Your task to perform on an android device: open app "Pluto TV - Live TV and Movies" (install if not already installed) Image 0: 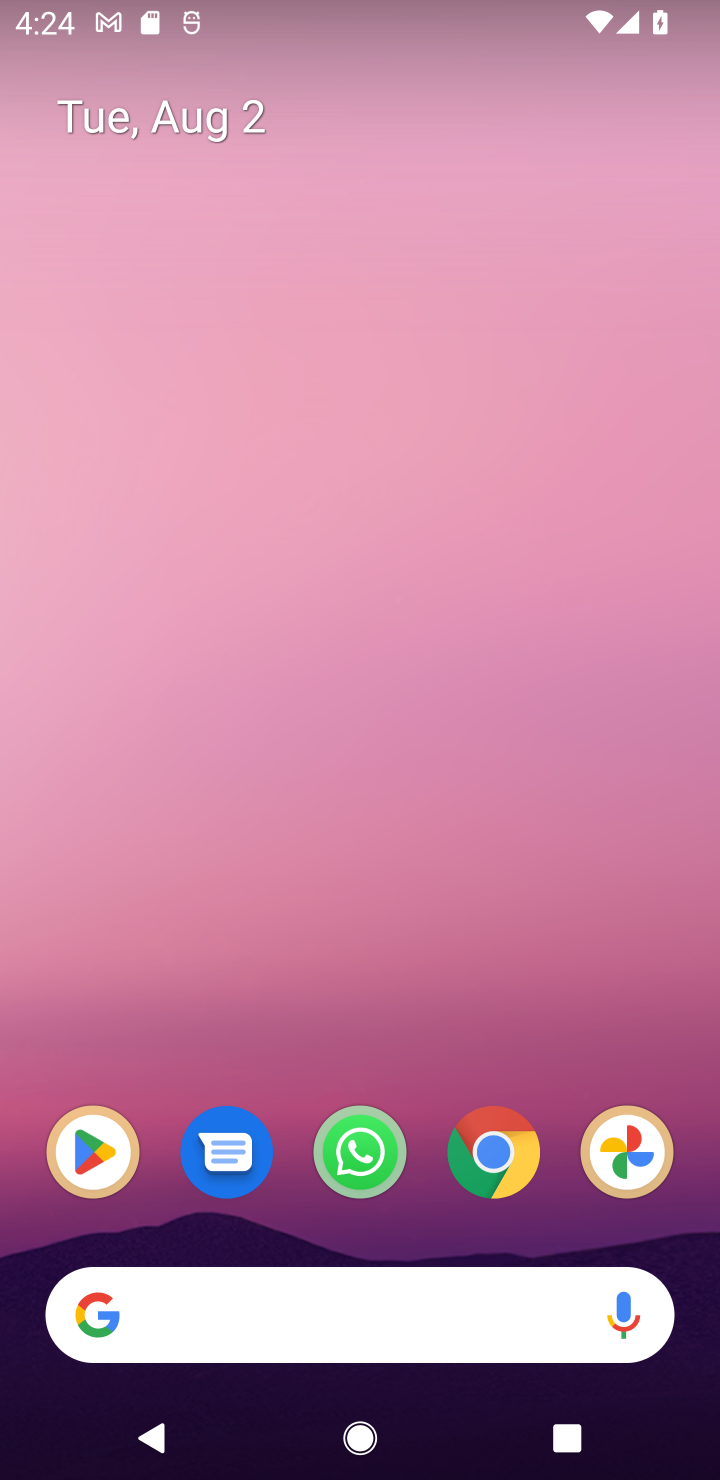
Step 0: drag from (515, 973) to (37, 82)
Your task to perform on an android device: open app "Pluto TV - Live TV and Movies" (install if not already installed) Image 1: 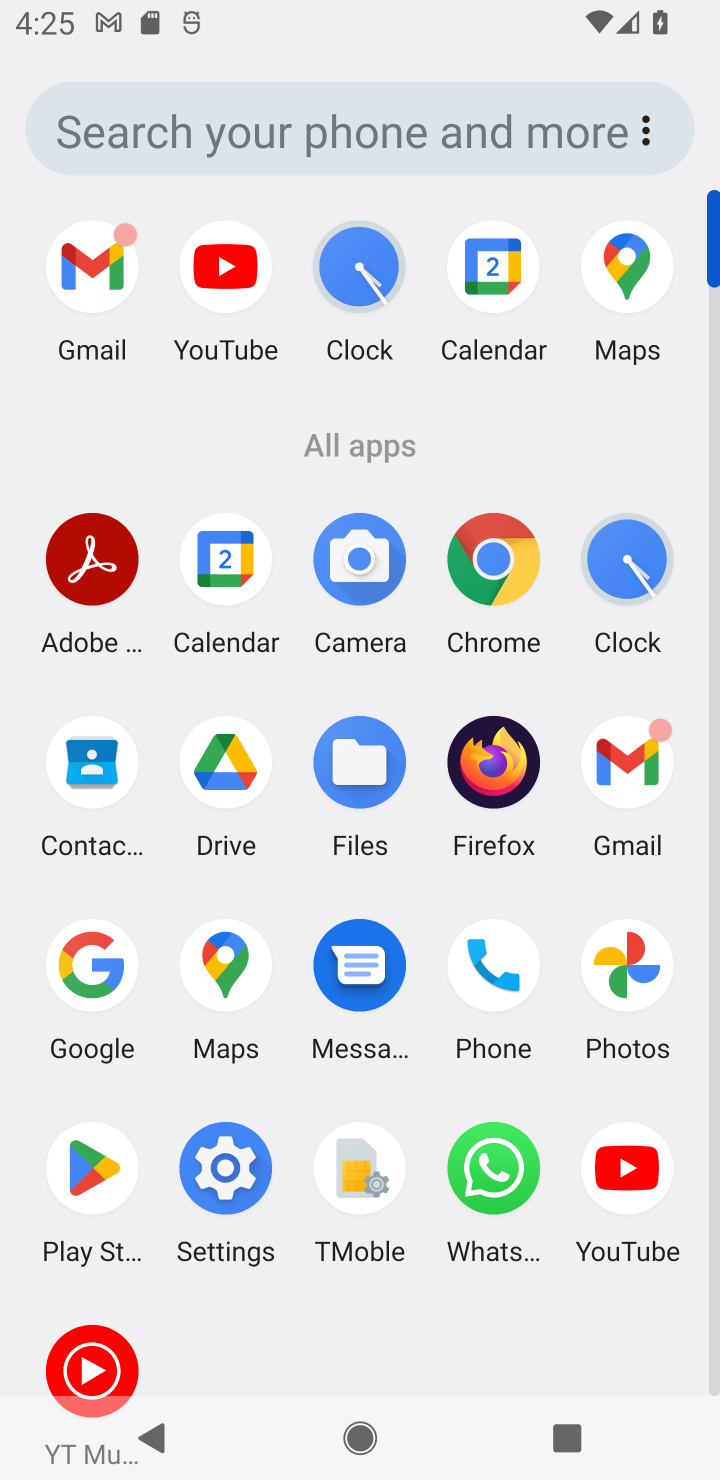
Step 1: click (387, 122)
Your task to perform on an android device: open app "Pluto TV - Live TV and Movies" (install if not already installed) Image 2: 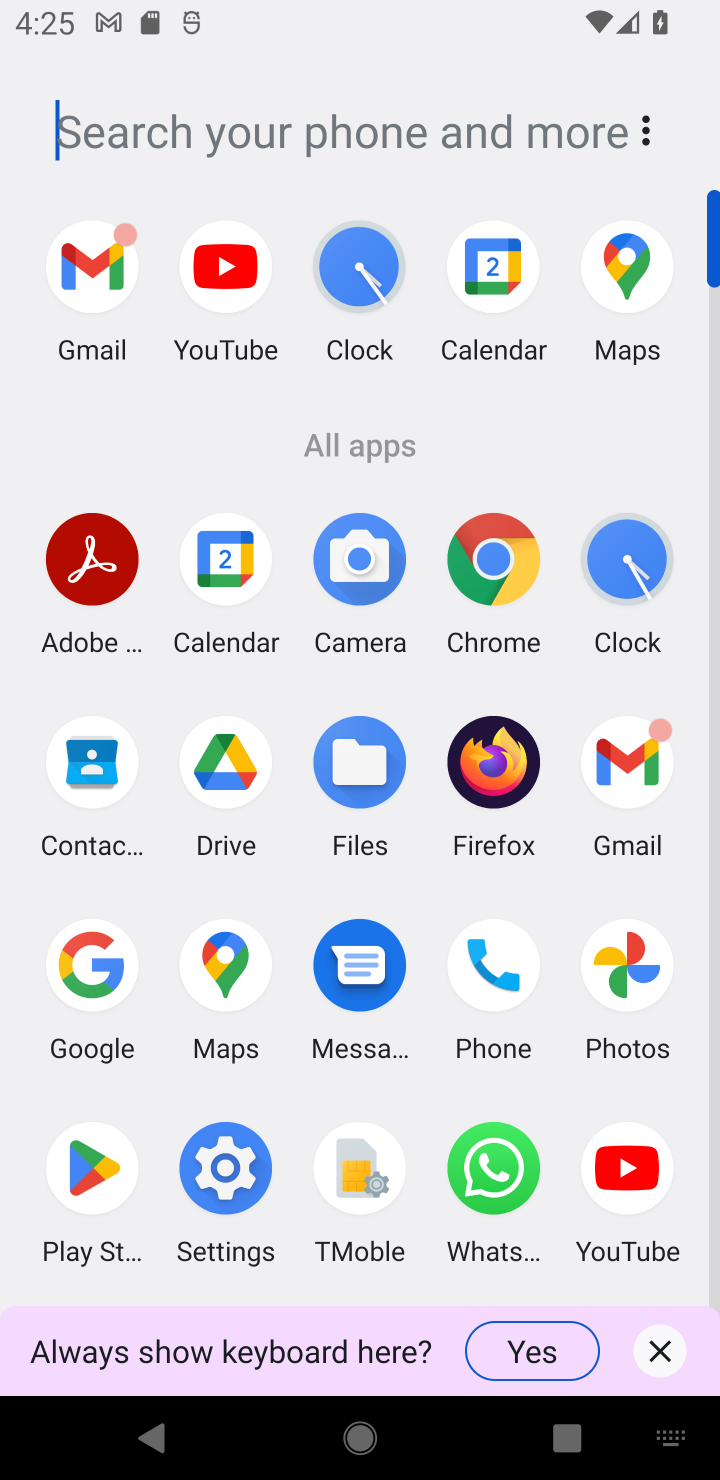
Step 2: click (90, 1160)
Your task to perform on an android device: open app "Pluto TV - Live TV and Movies" (install if not already installed) Image 3: 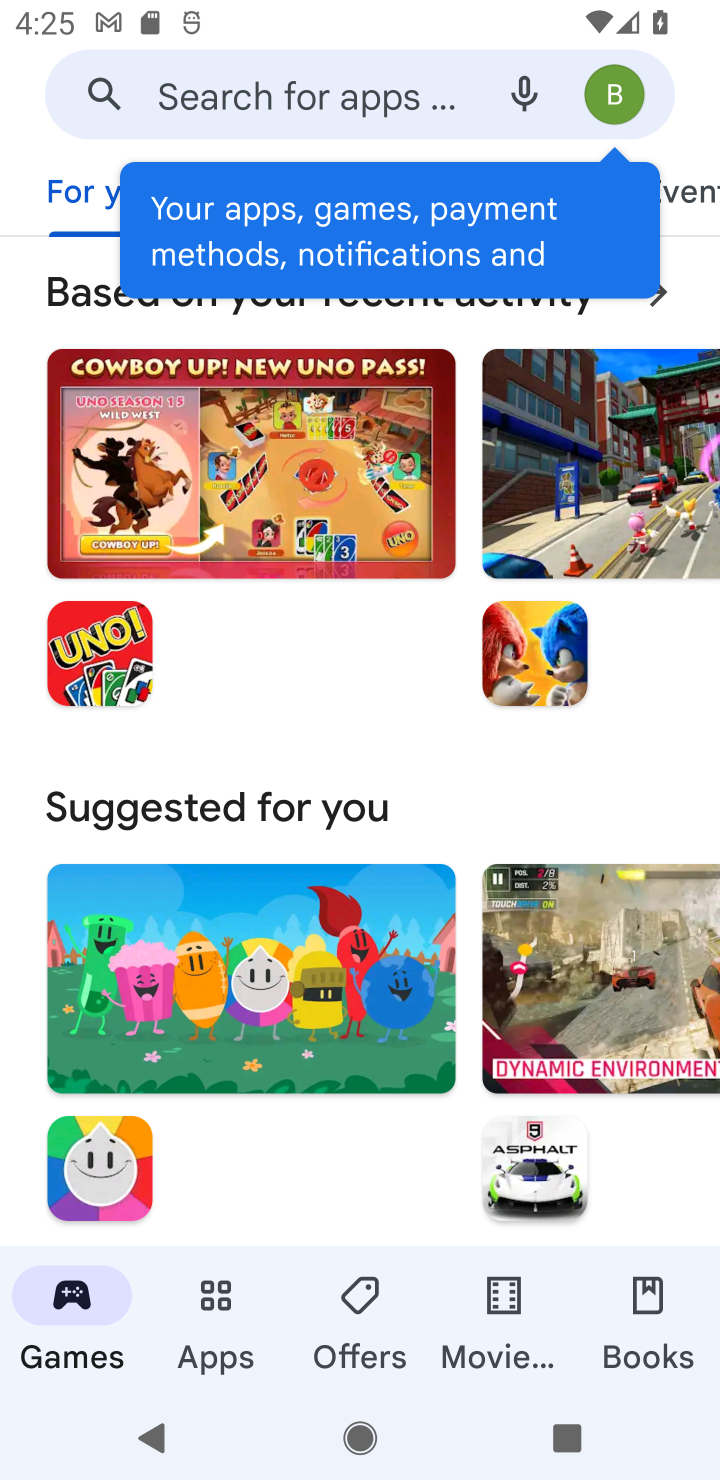
Step 3: click (243, 101)
Your task to perform on an android device: open app "Pluto TV - Live TV and Movies" (install if not already installed) Image 4: 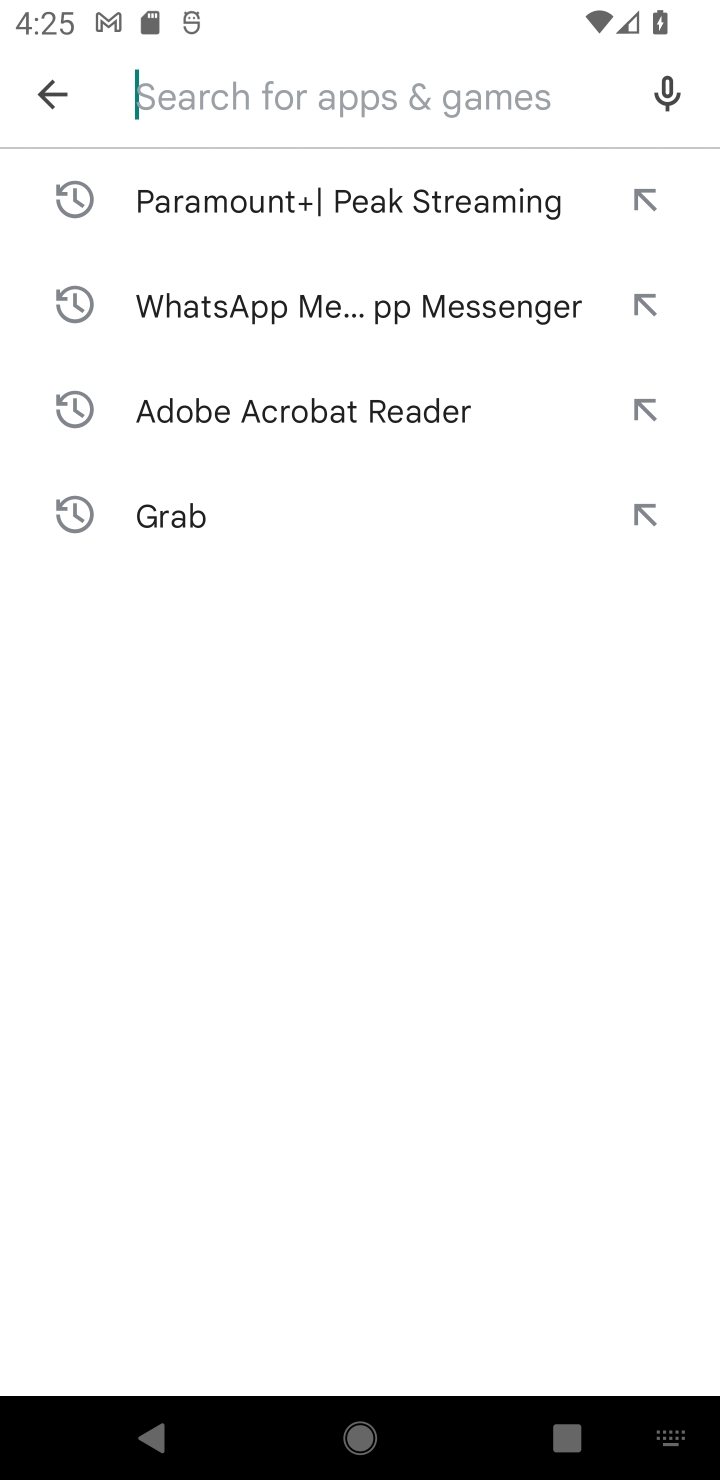
Step 4: type "Pluto TV - Live TV and Movies"
Your task to perform on an android device: open app "Pluto TV - Live TV and Movies" (install if not already installed) Image 5: 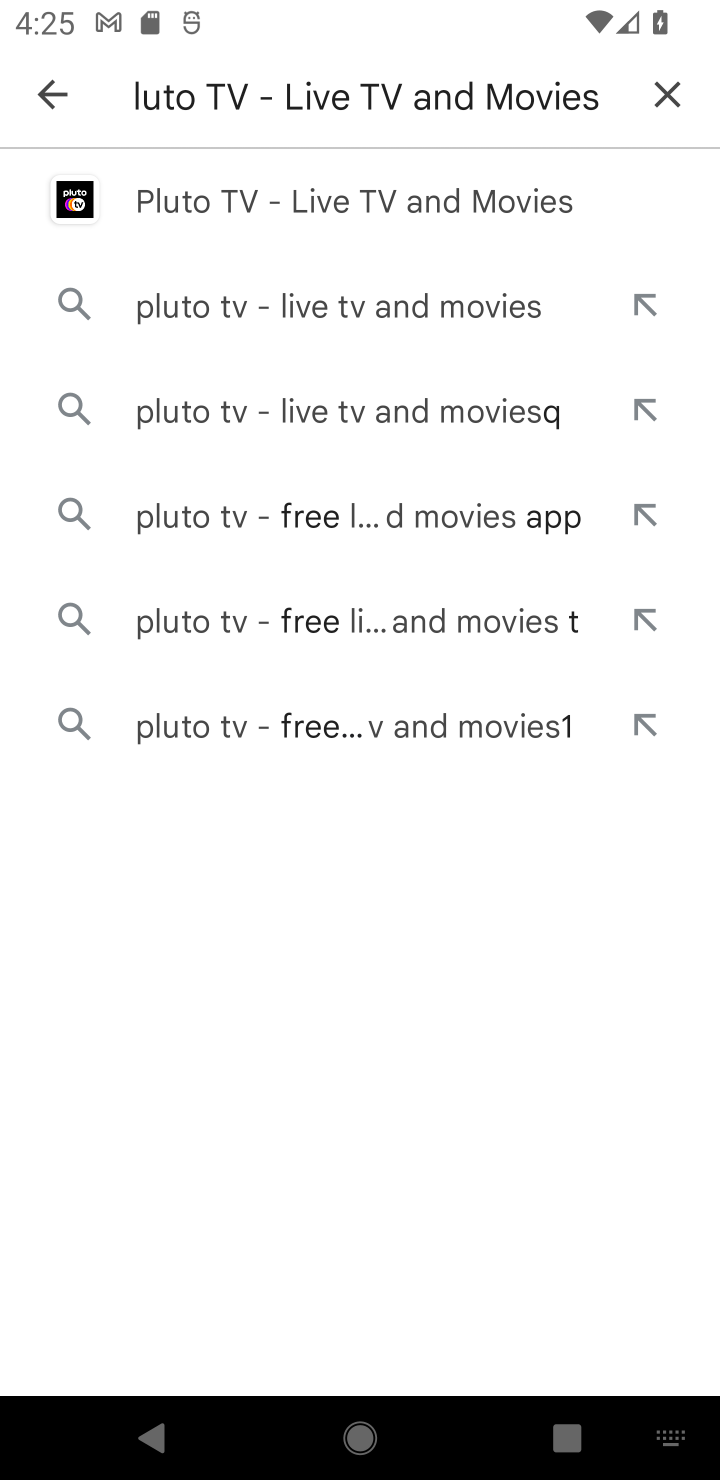
Step 5: click (226, 198)
Your task to perform on an android device: open app "Pluto TV - Live TV and Movies" (install if not already installed) Image 6: 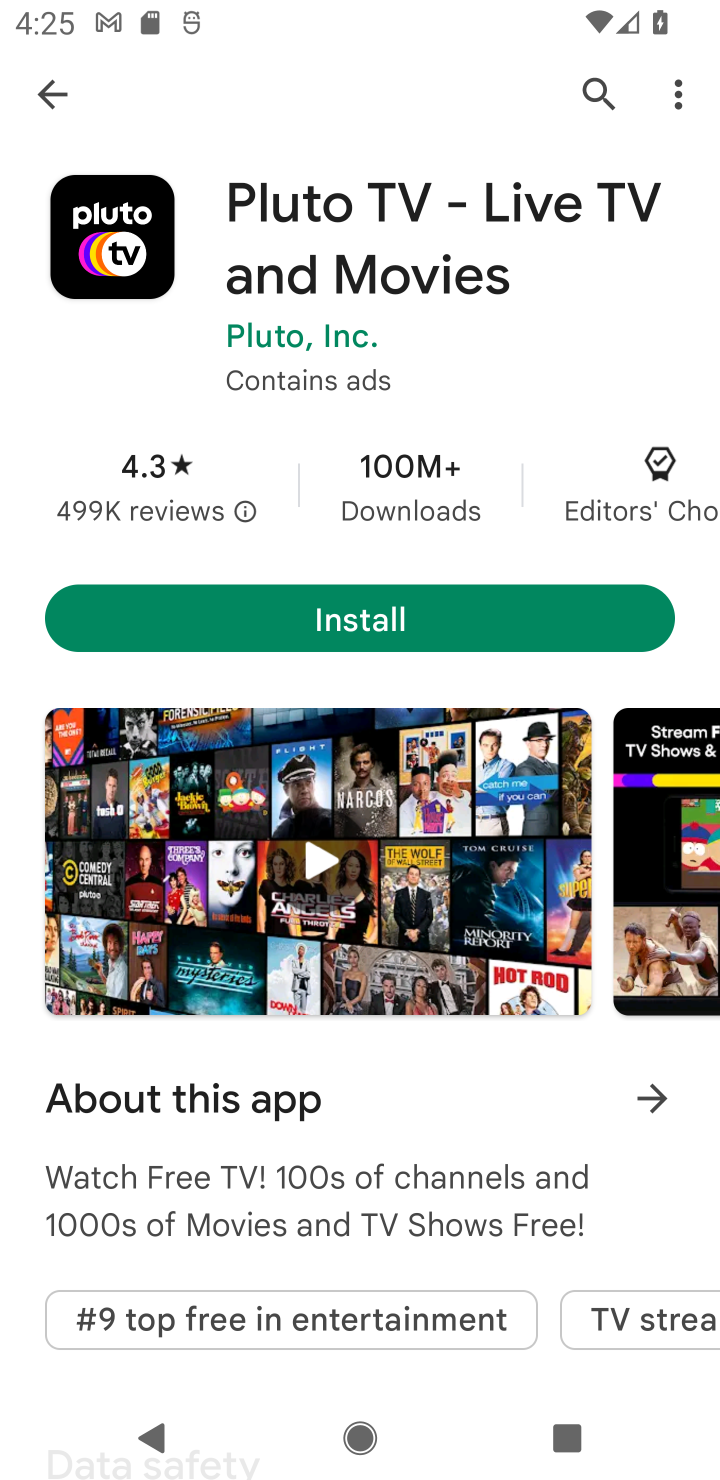
Step 6: click (514, 623)
Your task to perform on an android device: open app "Pluto TV - Live TV and Movies" (install if not already installed) Image 7: 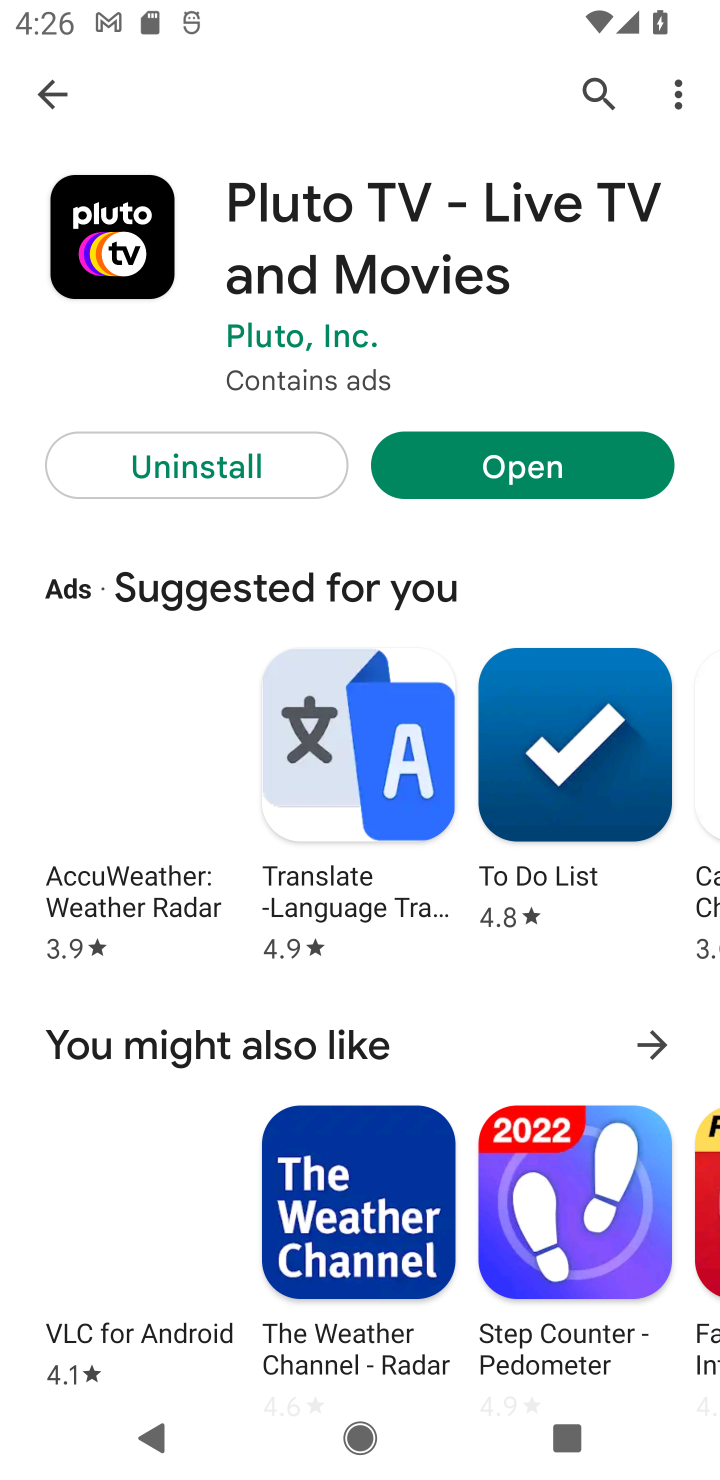
Step 7: click (604, 453)
Your task to perform on an android device: open app "Pluto TV - Live TV and Movies" (install if not already installed) Image 8: 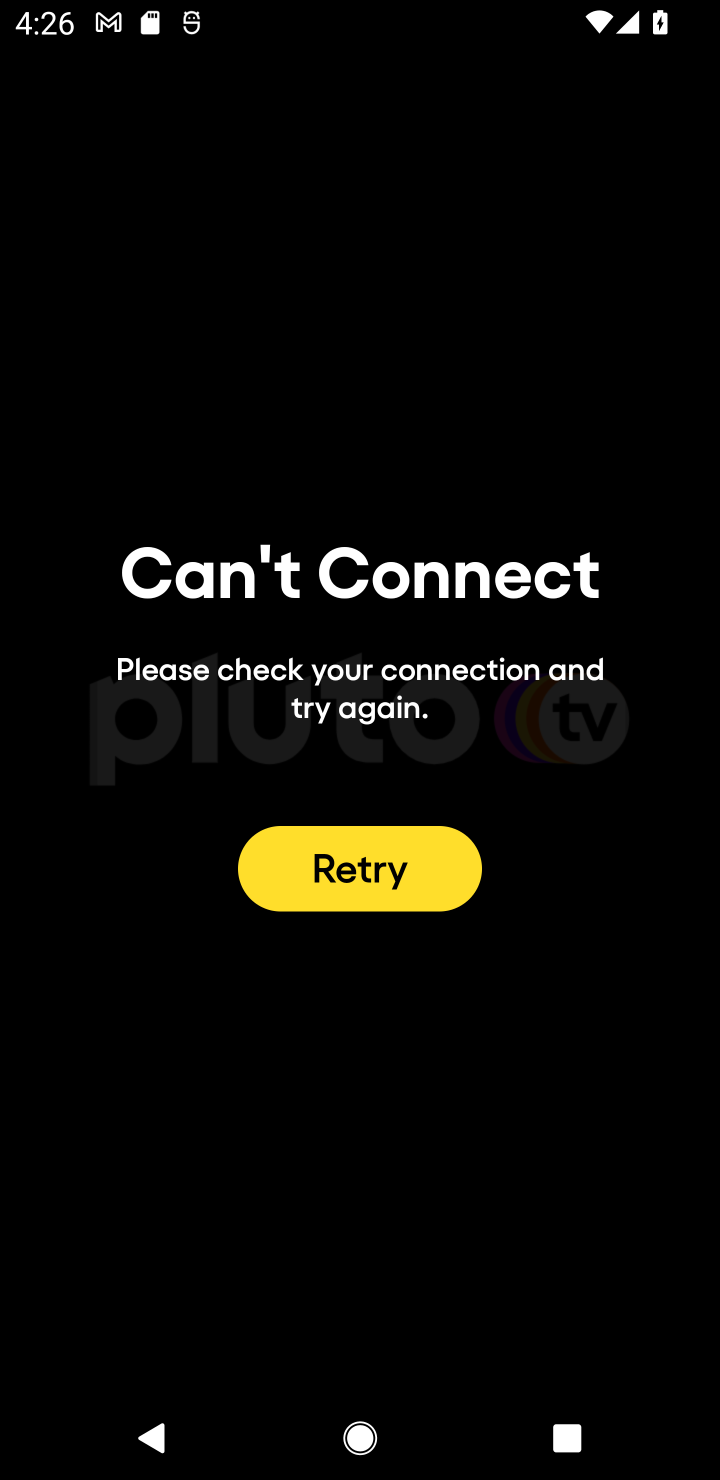
Step 8: task complete